Your task to perform on an android device: Turn on the flashlight Image 0: 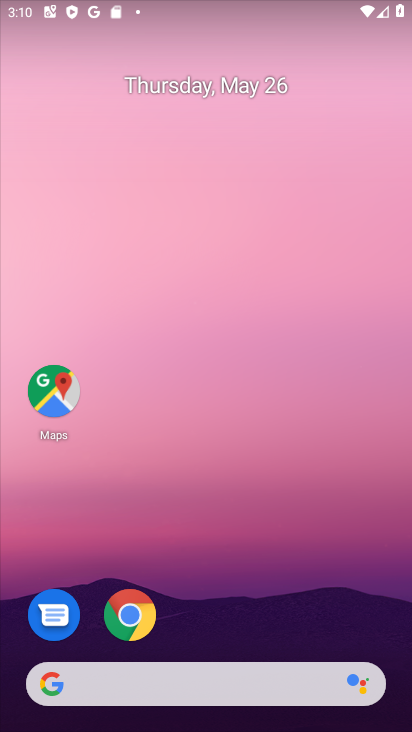
Step 0: drag from (200, 608) to (187, 167)
Your task to perform on an android device: Turn on the flashlight Image 1: 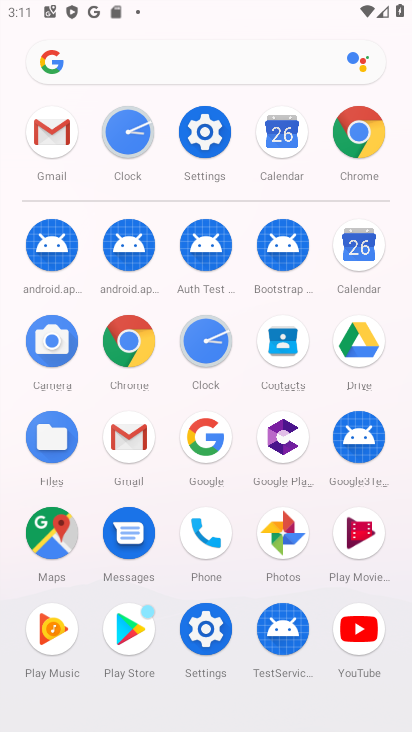
Step 1: task complete